Your task to perform on an android device: clear all cookies in the chrome app Image 0: 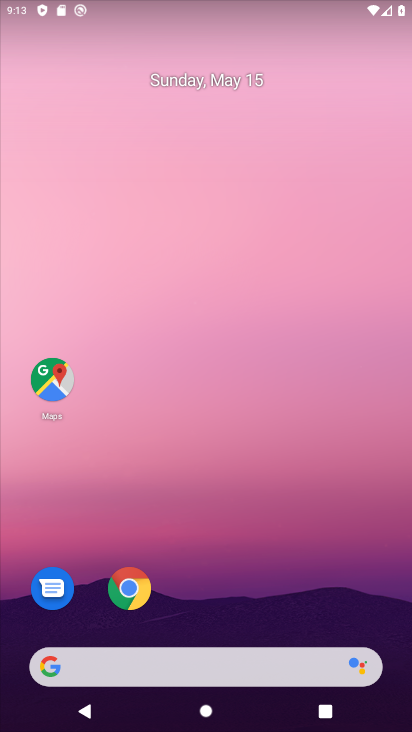
Step 0: click (143, 581)
Your task to perform on an android device: clear all cookies in the chrome app Image 1: 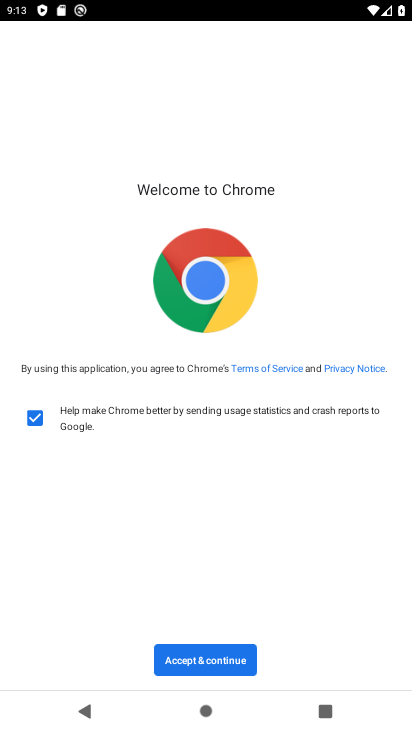
Step 1: click (200, 651)
Your task to perform on an android device: clear all cookies in the chrome app Image 2: 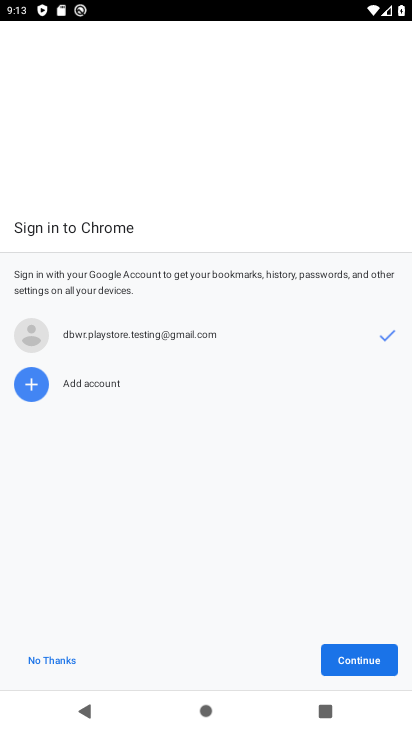
Step 2: click (372, 659)
Your task to perform on an android device: clear all cookies in the chrome app Image 3: 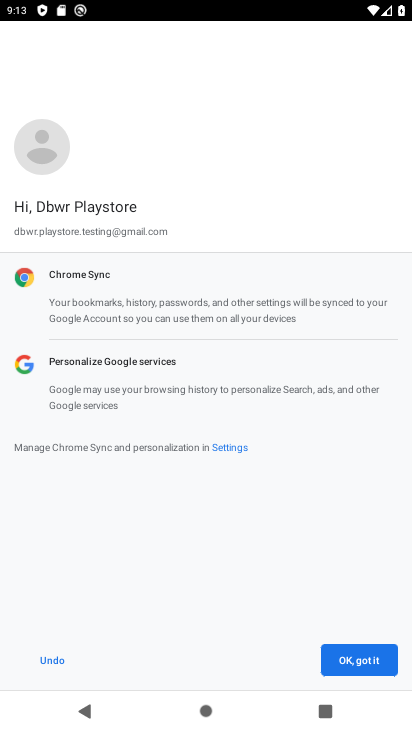
Step 3: click (372, 659)
Your task to perform on an android device: clear all cookies in the chrome app Image 4: 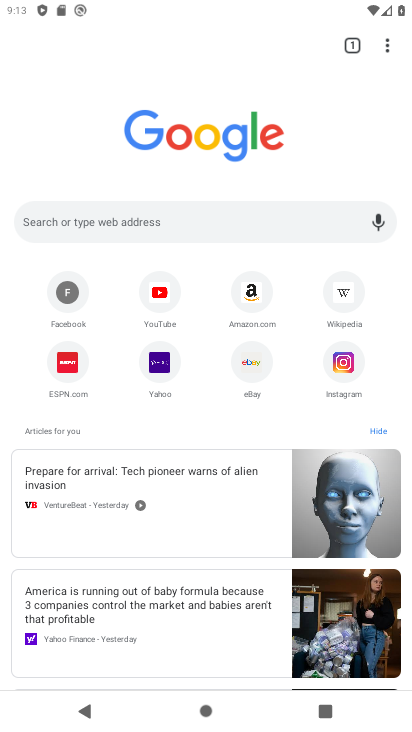
Step 4: click (385, 42)
Your task to perform on an android device: clear all cookies in the chrome app Image 5: 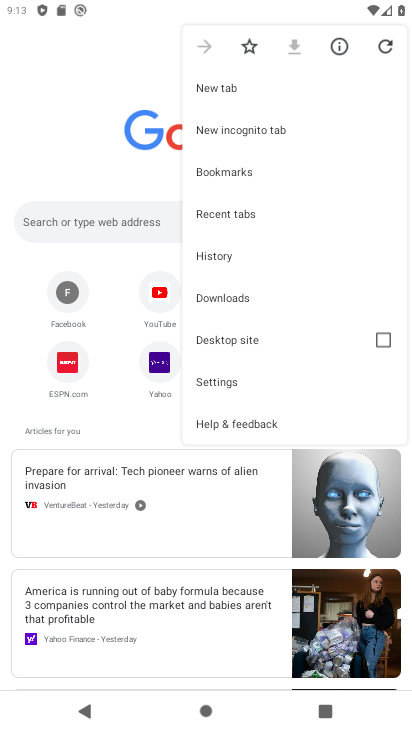
Step 5: click (219, 254)
Your task to perform on an android device: clear all cookies in the chrome app Image 6: 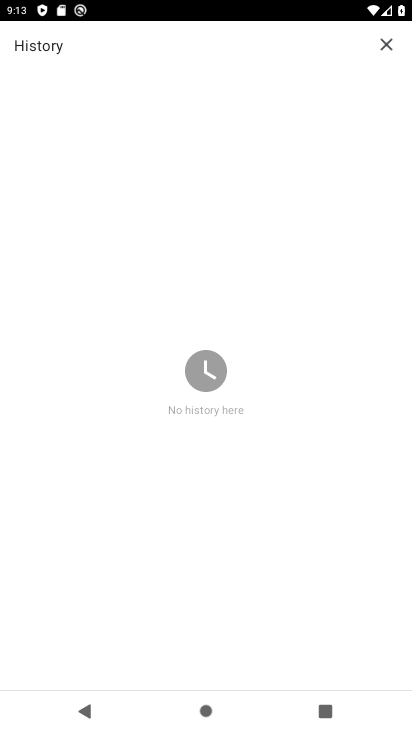
Step 6: task complete